Your task to perform on an android device: turn on location history Image 0: 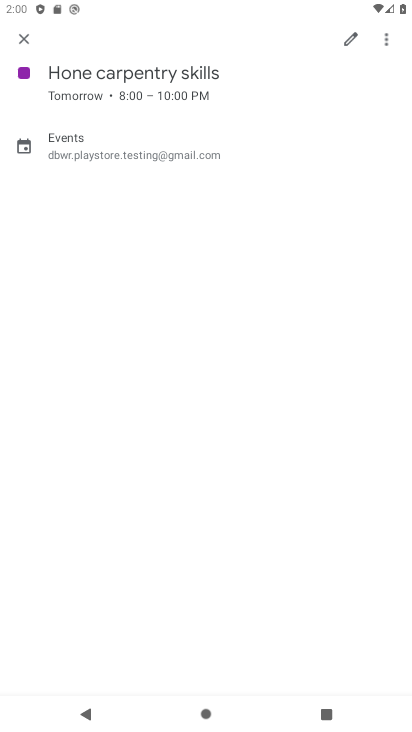
Step 0: press back button
Your task to perform on an android device: turn on location history Image 1: 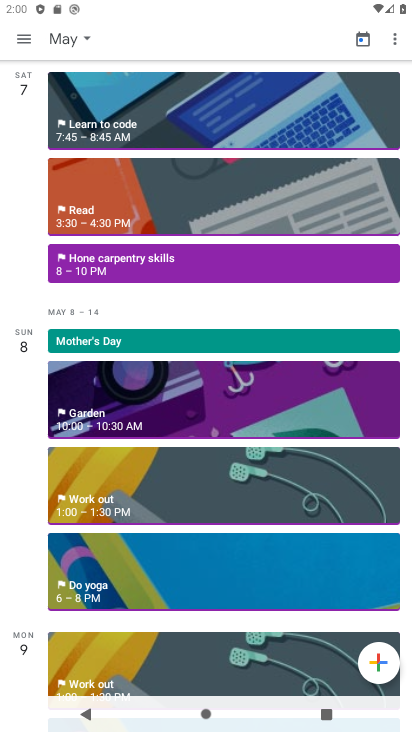
Step 1: press back button
Your task to perform on an android device: turn on location history Image 2: 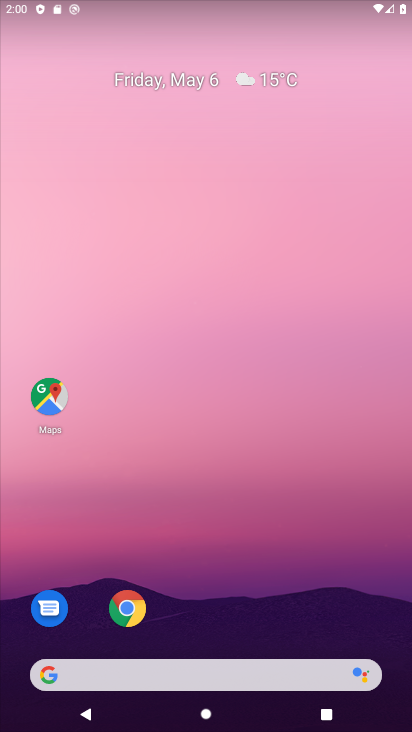
Step 2: drag from (209, 540) to (168, 15)
Your task to perform on an android device: turn on location history Image 3: 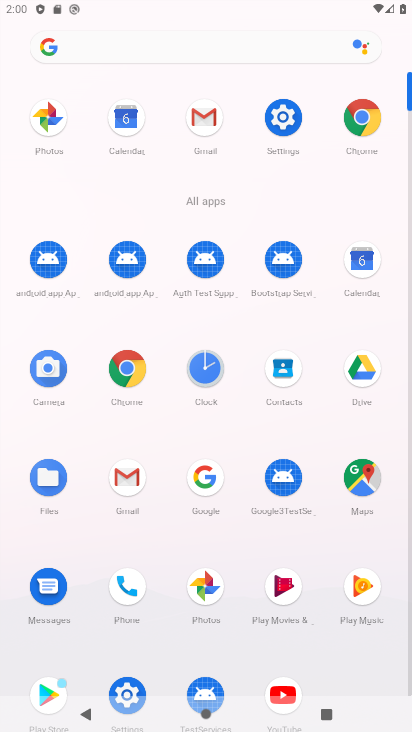
Step 3: drag from (159, 520) to (167, 391)
Your task to perform on an android device: turn on location history Image 4: 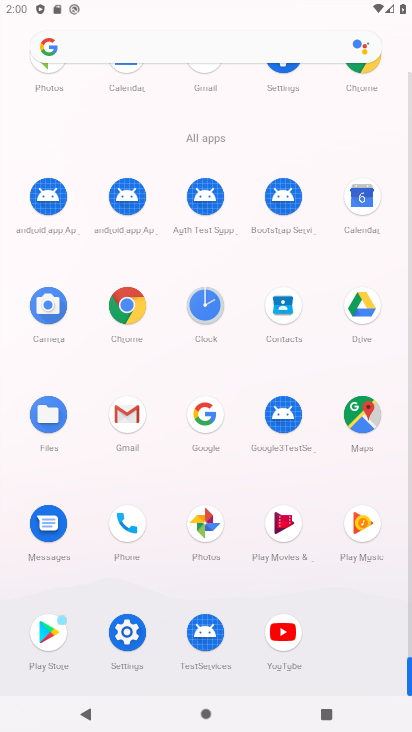
Step 4: click (127, 629)
Your task to perform on an android device: turn on location history Image 5: 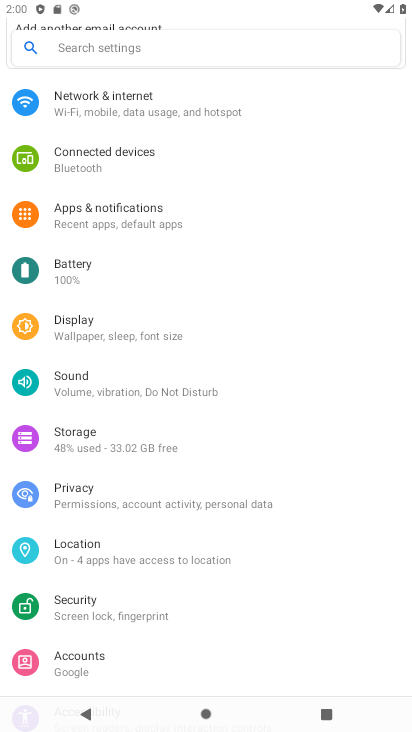
Step 5: click (92, 546)
Your task to perform on an android device: turn on location history Image 6: 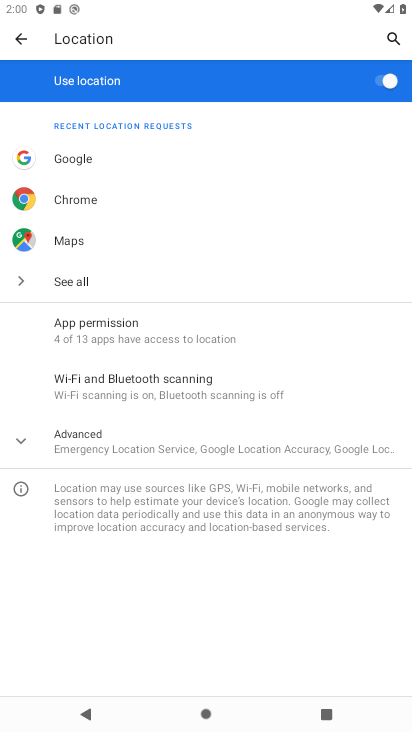
Step 6: click (87, 451)
Your task to perform on an android device: turn on location history Image 7: 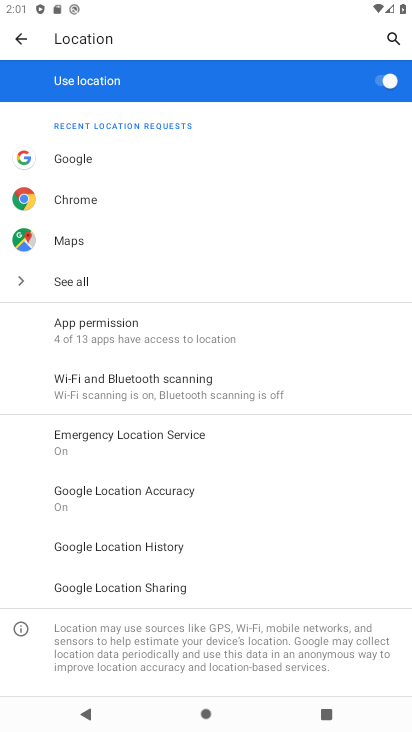
Step 7: click (140, 552)
Your task to perform on an android device: turn on location history Image 8: 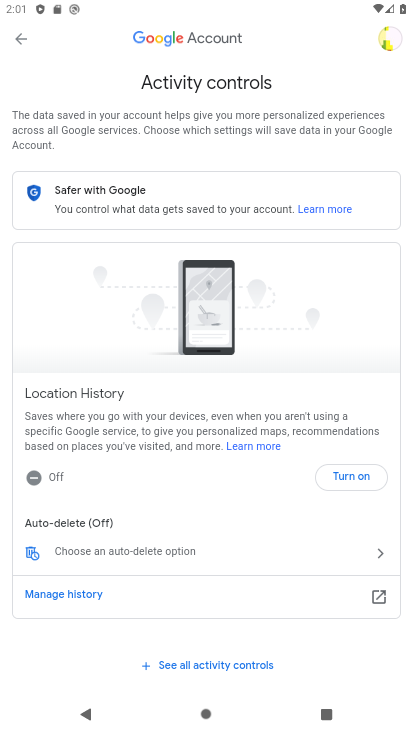
Step 8: click (349, 475)
Your task to perform on an android device: turn on location history Image 9: 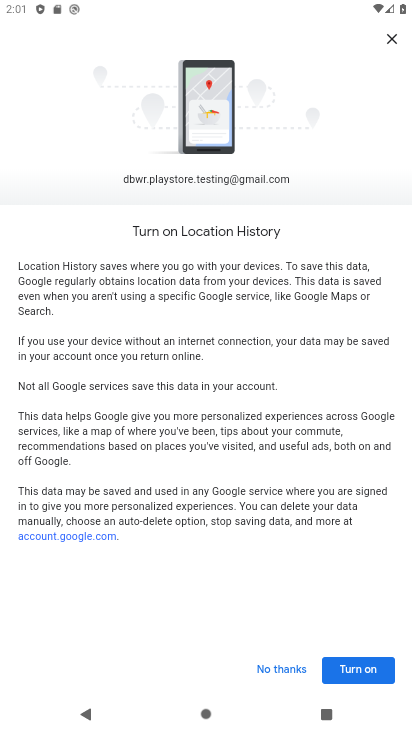
Step 9: click (358, 666)
Your task to perform on an android device: turn on location history Image 10: 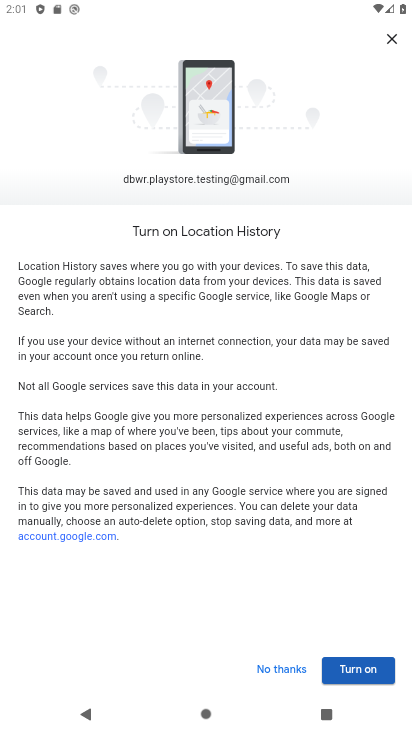
Step 10: click (358, 666)
Your task to perform on an android device: turn on location history Image 11: 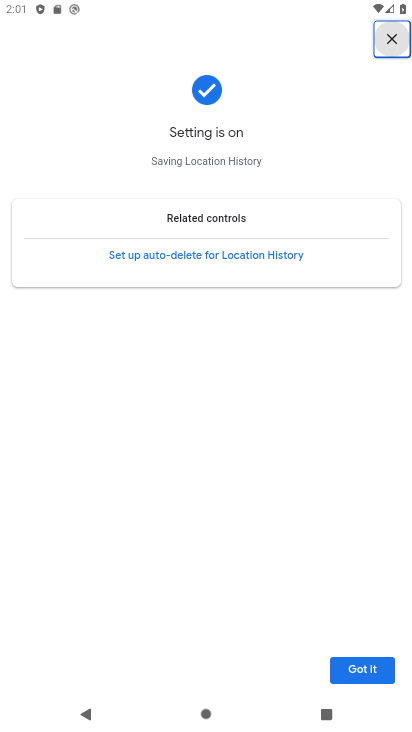
Step 11: task complete